Your task to perform on an android device: Open Amazon Image 0: 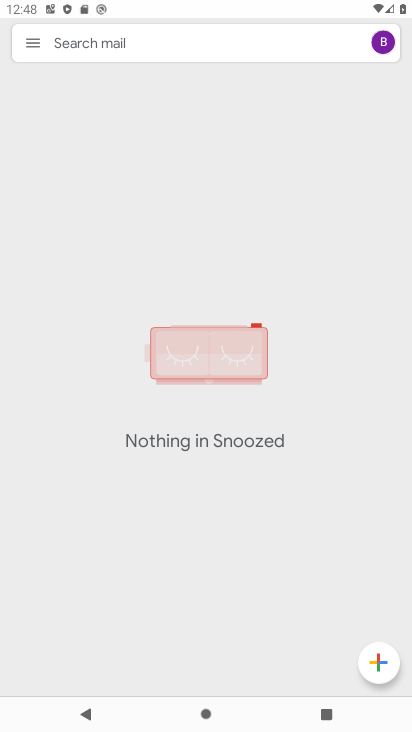
Step 0: press home button
Your task to perform on an android device: Open Amazon Image 1: 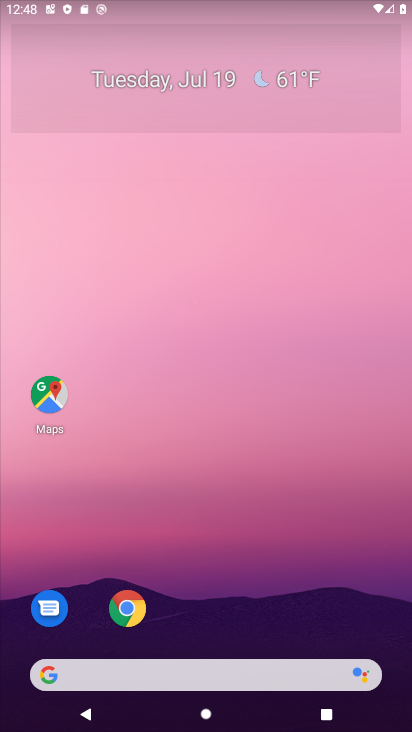
Step 1: drag from (272, 566) to (294, 1)
Your task to perform on an android device: Open Amazon Image 2: 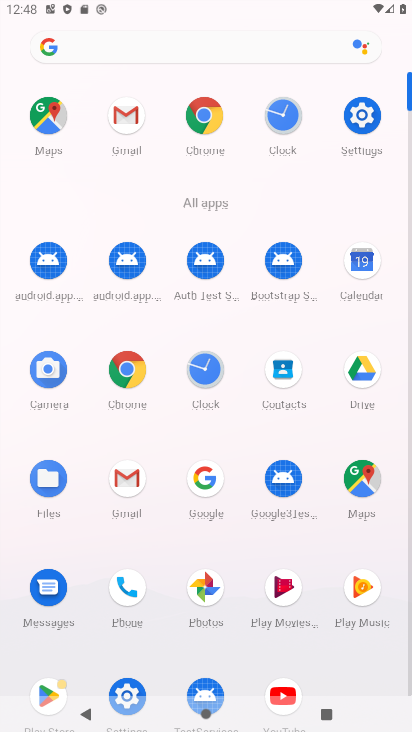
Step 2: click (207, 113)
Your task to perform on an android device: Open Amazon Image 3: 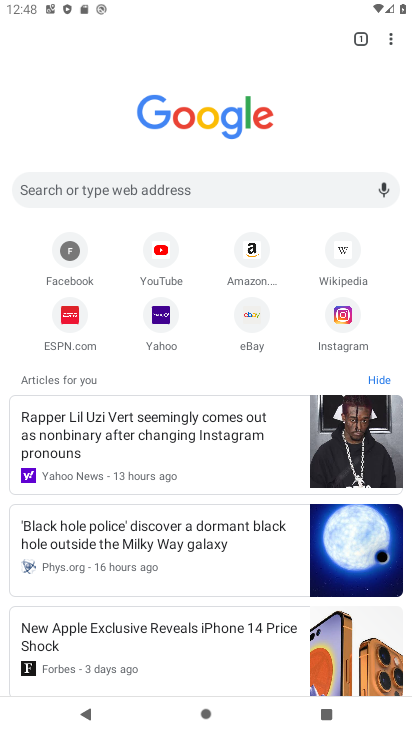
Step 3: click (243, 256)
Your task to perform on an android device: Open Amazon Image 4: 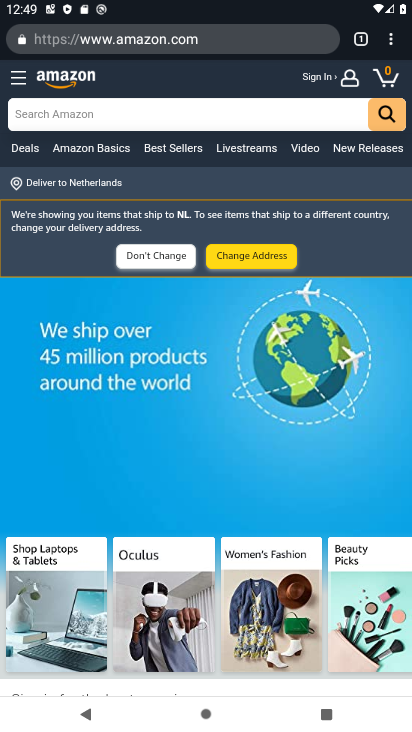
Step 4: task complete